Your task to perform on an android device: open chrome and create a bookmark for the current page Image 0: 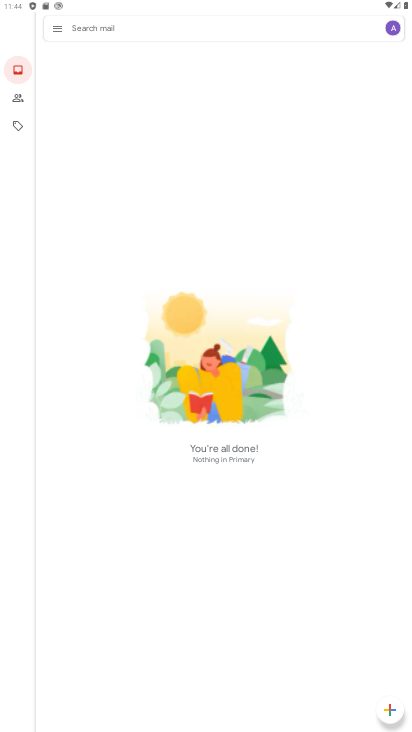
Step 0: press home button
Your task to perform on an android device: open chrome and create a bookmark for the current page Image 1: 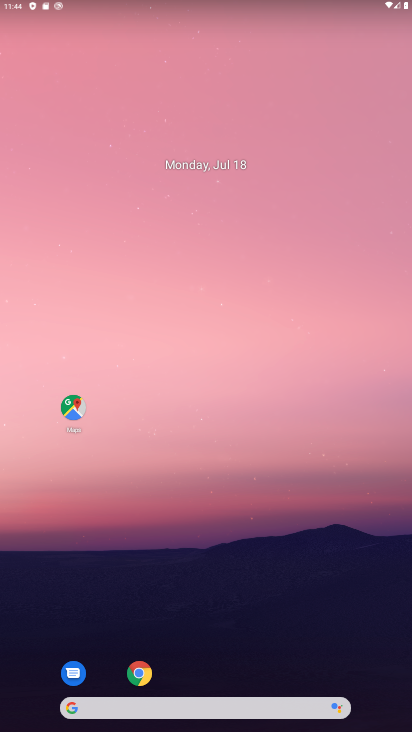
Step 1: click (143, 664)
Your task to perform on an android device: open chrome and create a bookmark for the current page Image 2: 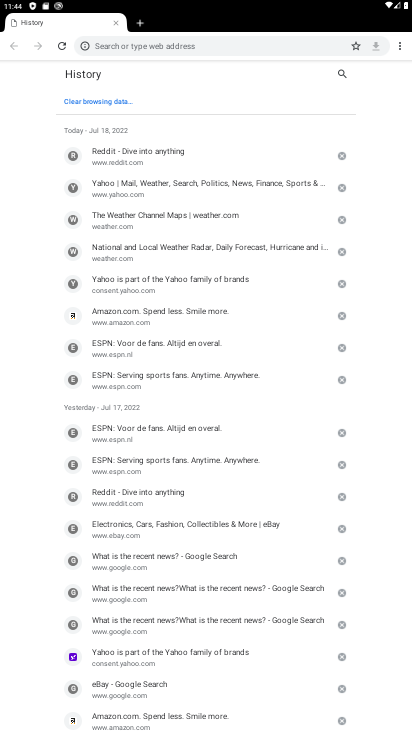
Step 2: click (353, 46)
Your task to perform on an android device: open chrome and create a bookmark for the current page Image 3: 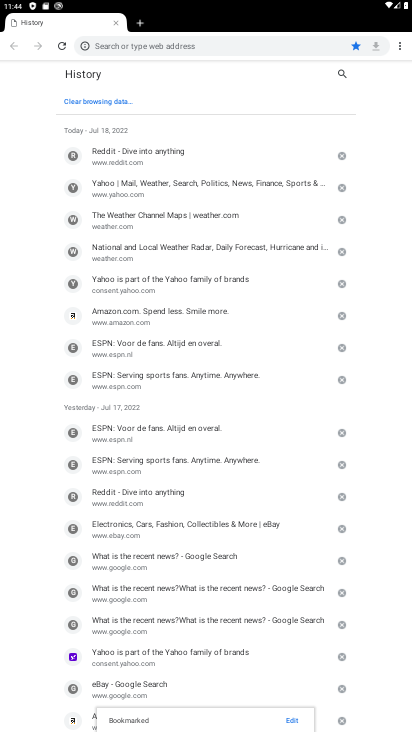
Step 3: task complete